Your task to perform on an android device: Go to network settings Image 0: 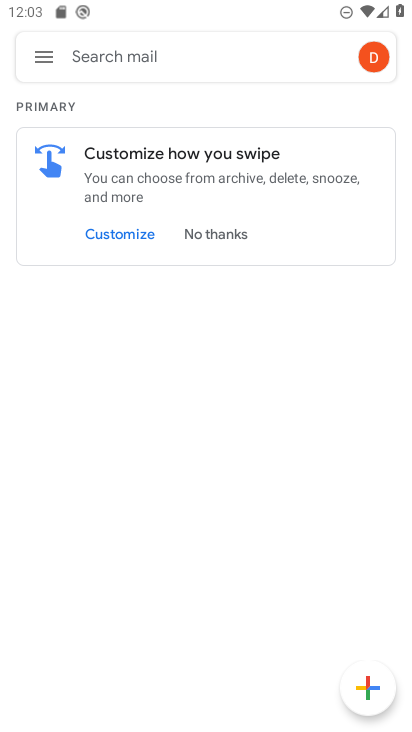
Step 0: press home button
Your task to perform on an android device: Go to network settings Image 1: 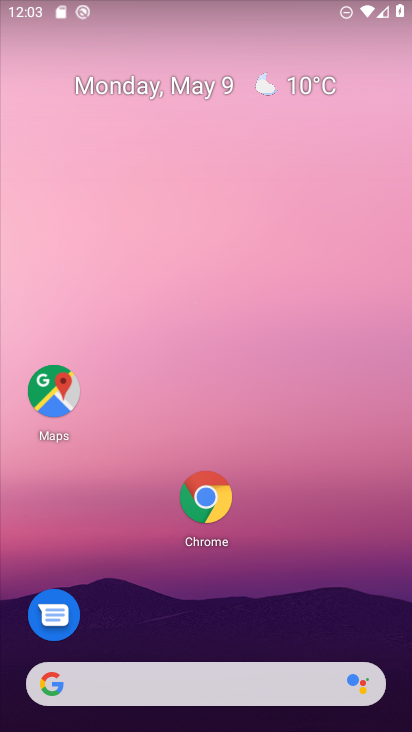
Step 1: drag from (338, 546) to (229, 107)
Your task to perform on an android device: Go to network settings Image 2: 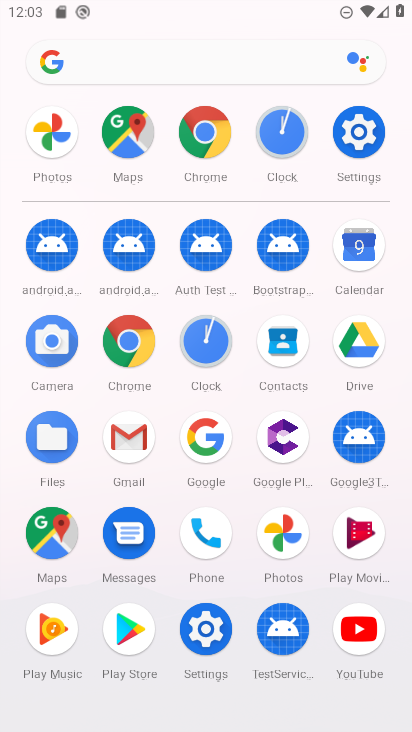
Step 2: click (366, 132)
Your task to perform on an android device: Go to network settings Image 3: 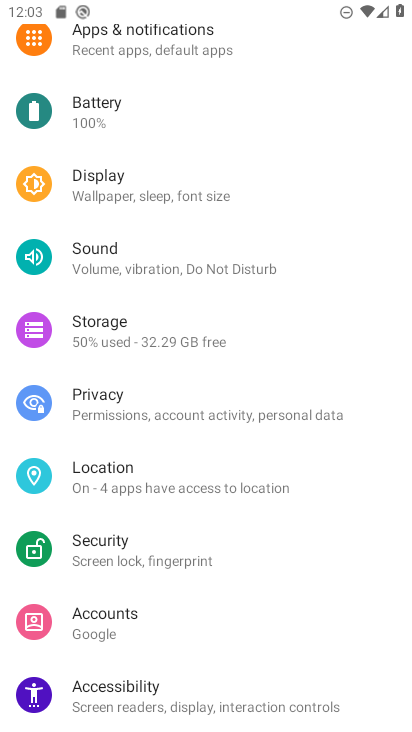
Step 3: drag from (195, 180) to (231, 596)
Your task to perform on an android device: Go to network settings Image 4: 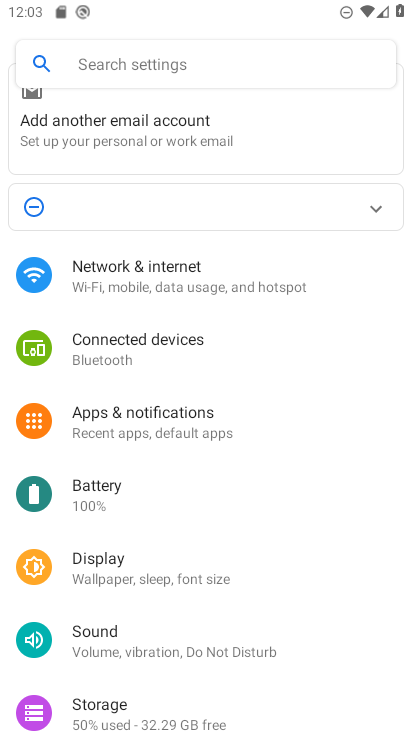
Step 4: click (172, 298)
Your task to perform on an android device: Go to network settings Image 5: 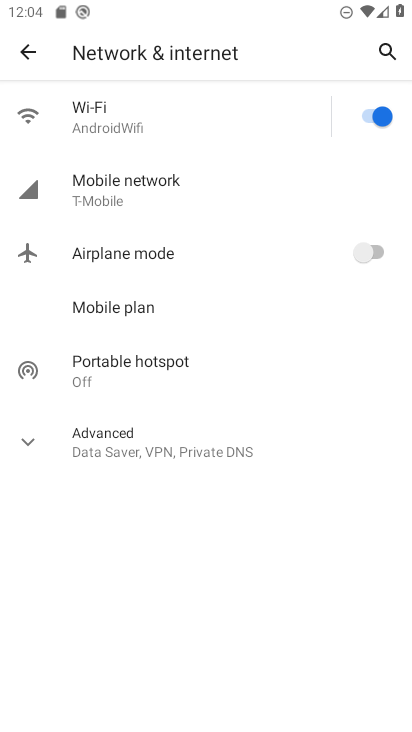
Step 5: task complete